Your task to perform on an android device: Open settings Image 0: 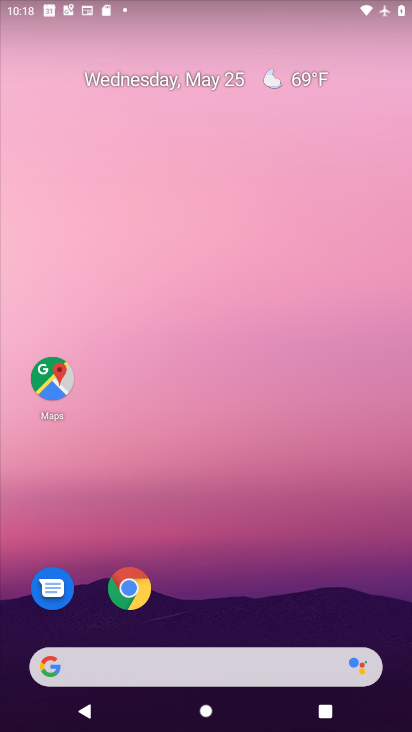
Step 0: drag from (394, 604) to (360, 117)
Your task to perform on an android device: Open settings Image 1: 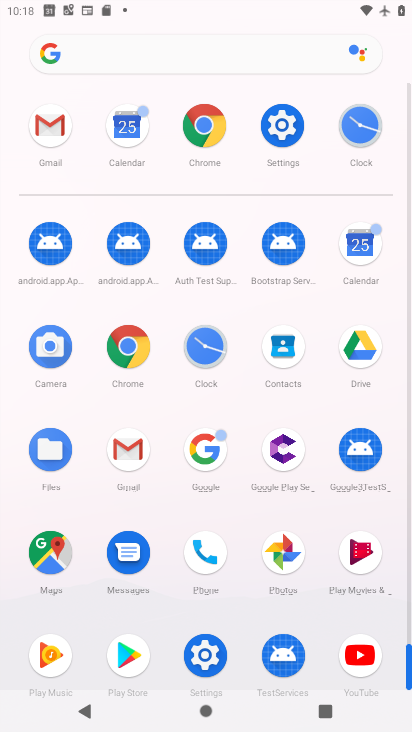
Step 1: click (284, 123)
Your task to perform on an android device: Open settings Image 2: 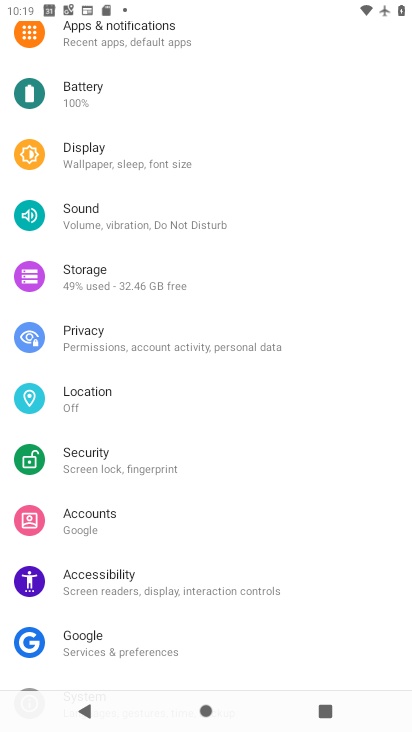
Step 2: task complete